Your task to perform on an android device: change the clock display to digital Image 0: 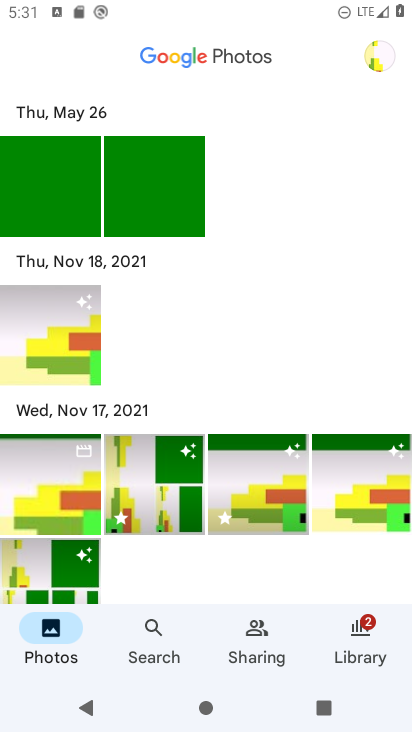
Step 0: press home button
Your task to perform on an android device: change the clock display to digital Image 1: 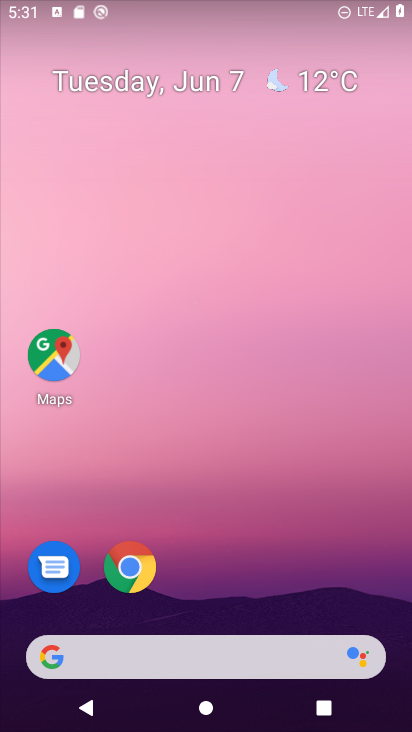
Step 1: drag from (244, 492) to (246, 23)
Your task to perform on an android device: change the clock display to digital Image 2: 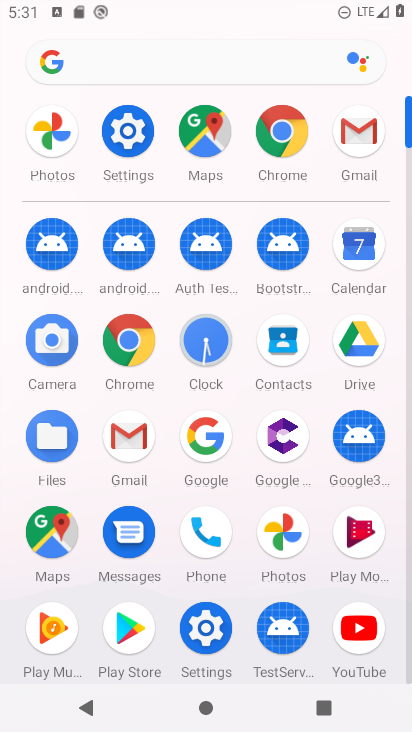
Step 2: click (189, 351)
Your task to perform on an android device: change the clock display to digital Image 3: 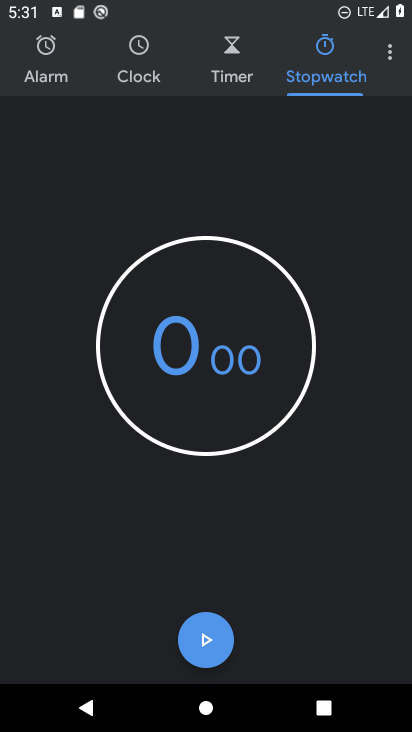
Step 3: click (387, 48)
Your task to perform on an android device: change the clock display to digital Image 4: 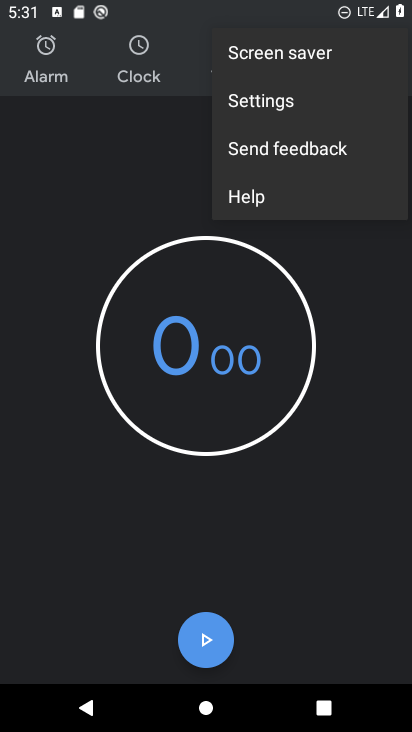
Step 4: click (282, 114)
Your task to perform on an android device: change the clock display to digital Image 5: 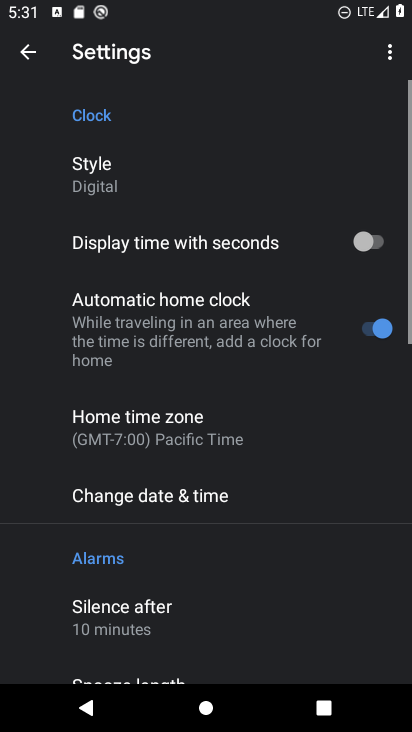
Step 5: click (188, 179)
Your task to perform on an android device: change the clock display to digital Image 6: 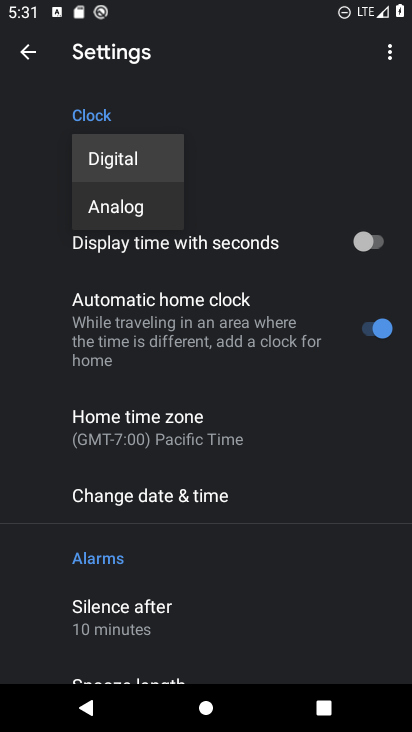
Step 6: click (137, 197)
Your task to perform on an android device: change the clock display to digital Image 7: 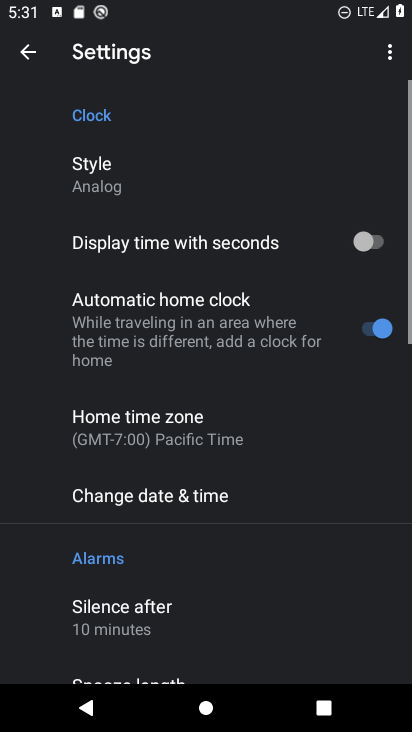
Step 7: task complete